Your task to perform on an android device: Search for "lenovo thinkpad" on walmart.com, select the first entry, and add it to the cart. Image 0: 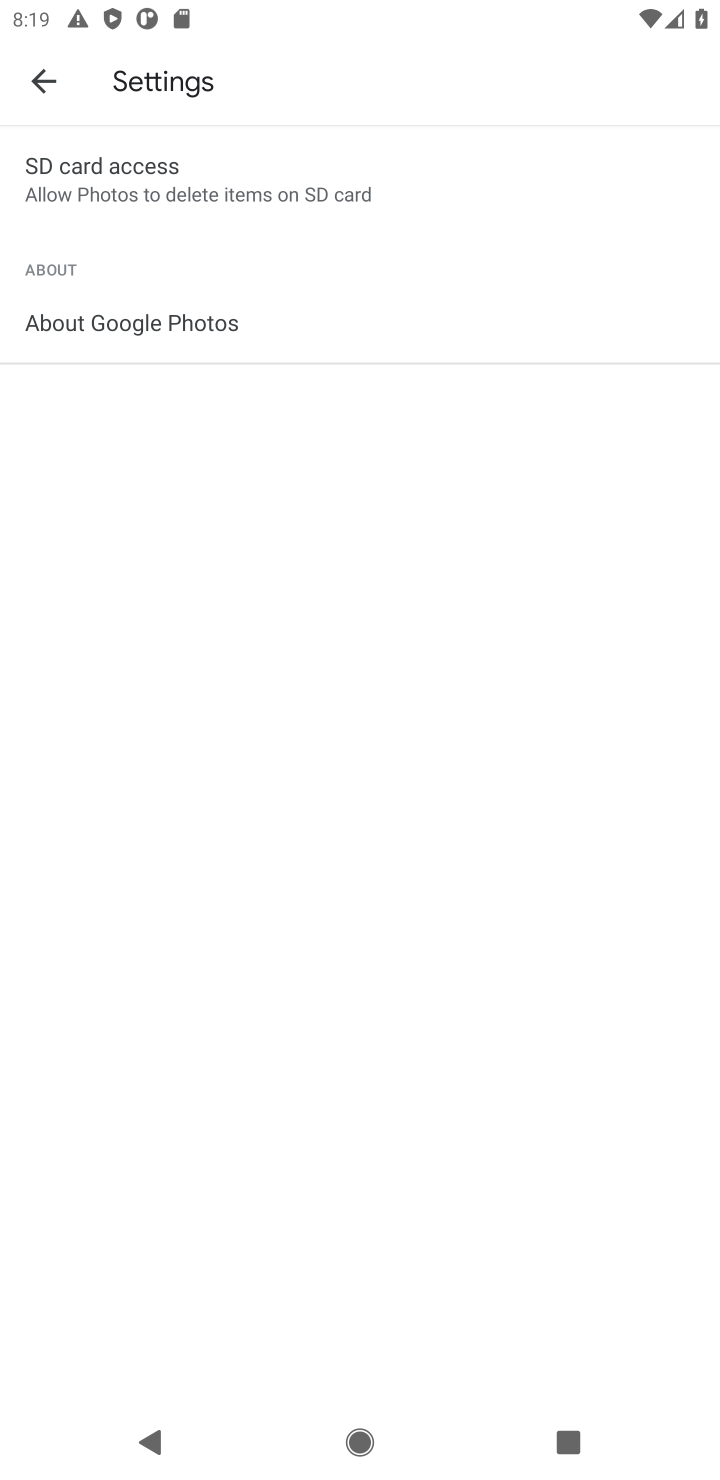
Step 0: press home button
Your task to perform on an android device: Search for "lenovo thinkpad" on walmart.com, select the first entry, and add it to the cart. Image 1: 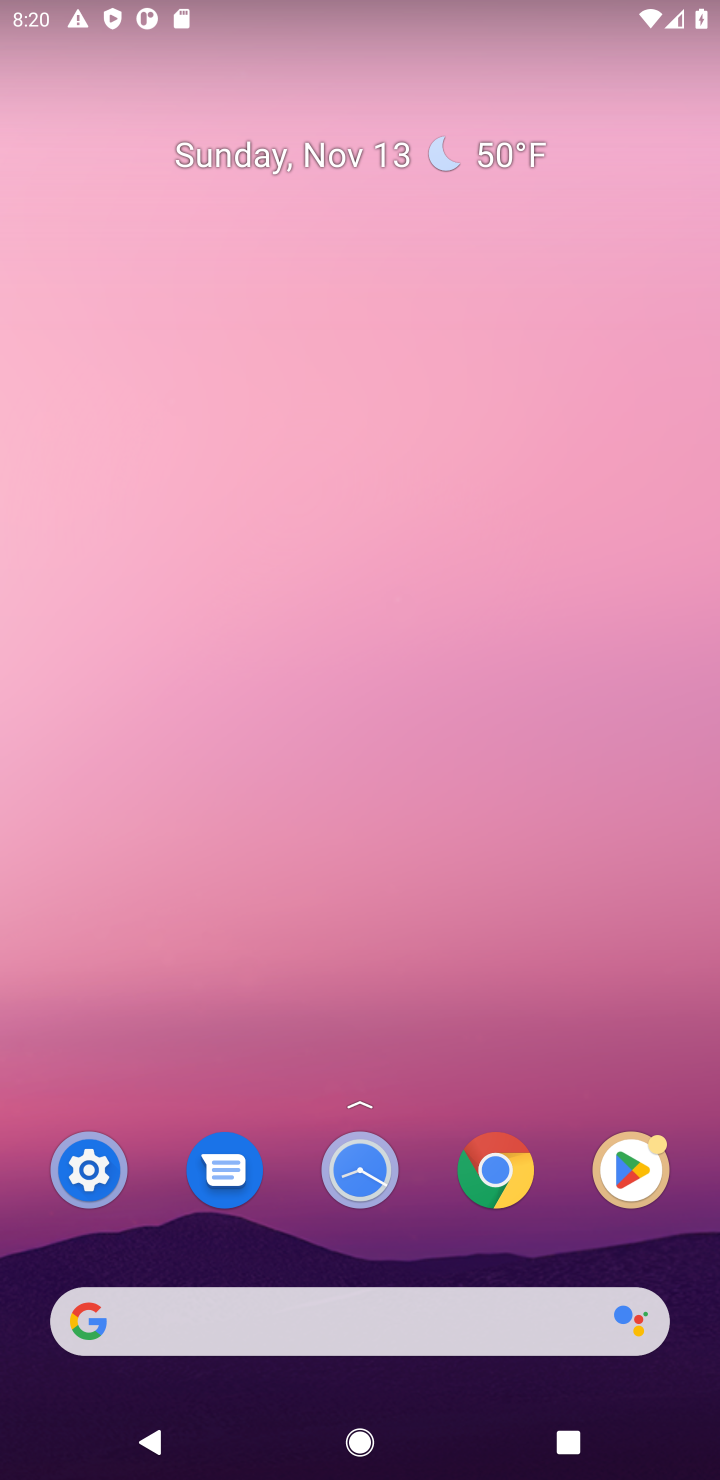
Step 1: click (395, 1316)
Your task to perform on an android device: Search for "lenovo thinkpad" on walmart.com, select the first entry, and add it to the cart. Image 2: 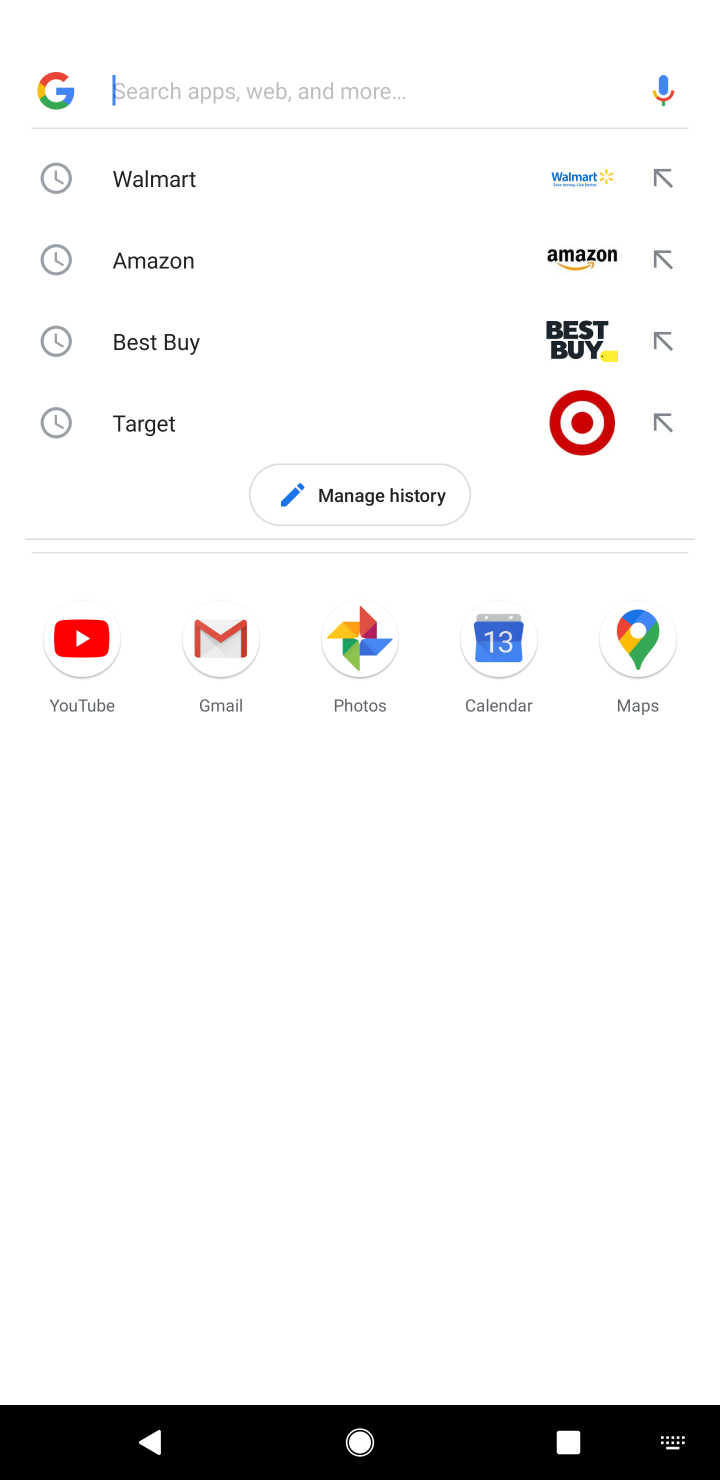
Step 2: type "walmart"
Your task to perform on an android device: Search for "lenovo thinkpad" on walmart.com, select the first entry, and add it to the cart. Image 3: 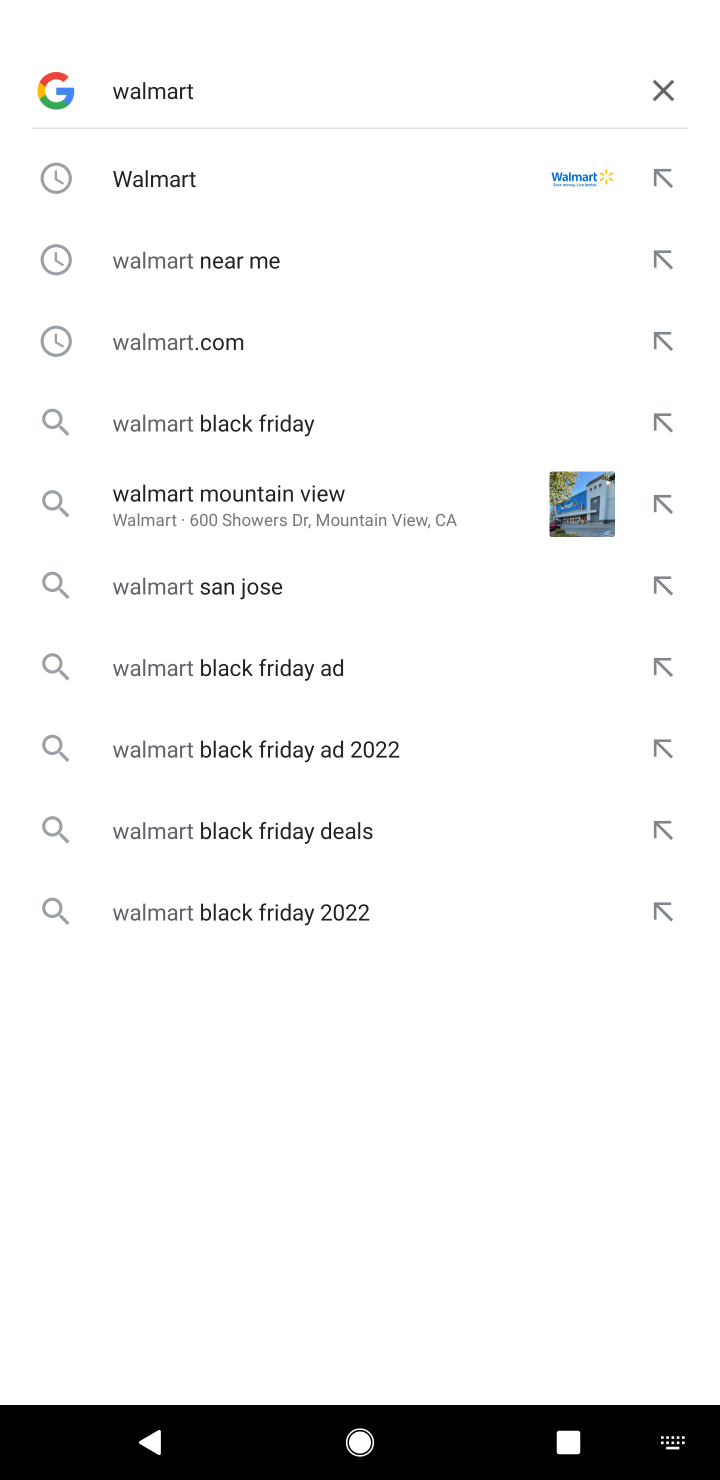
Step 3: click (271, 159)
Your task to perform on an android device: Search for "lenovo thinkpad" on walmart.com, select the first entry, and add it to the cart. Image 4: 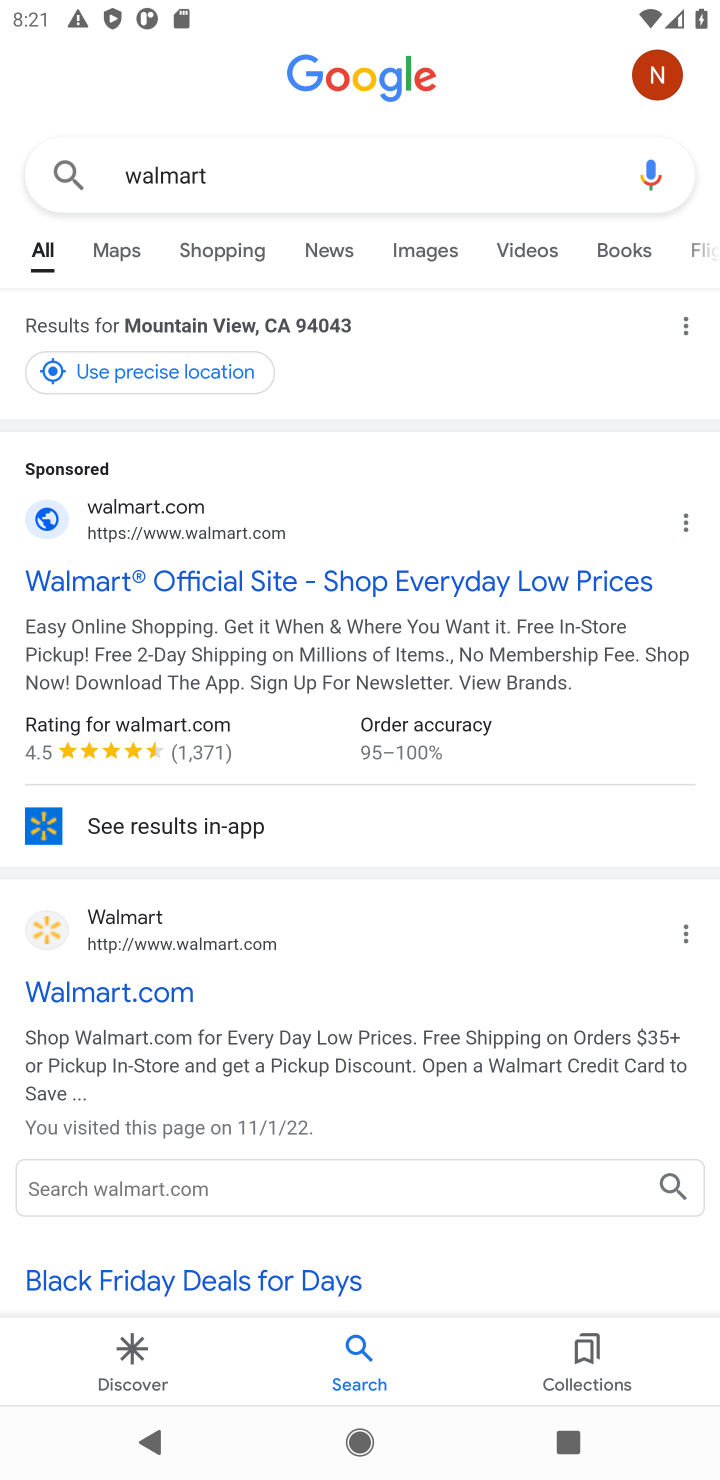
Step 4: click (99, 585)
Your task to perform on an android device: Search for "lenovo thinkpad" on walmart.com, select the first entry, and add it to the cart. Image 5: 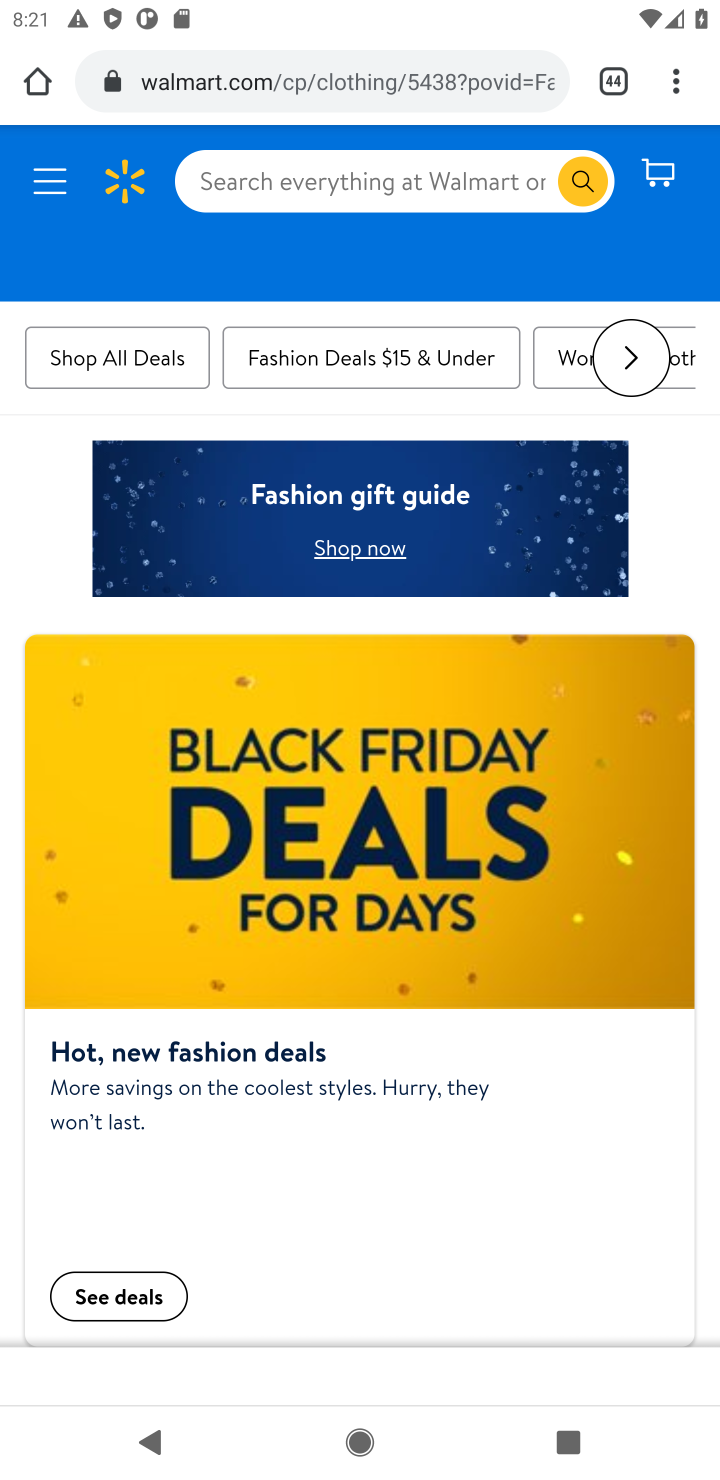
Step 5: task complete